Your task to perform on an android device: clear history in the chrome app Image 0: 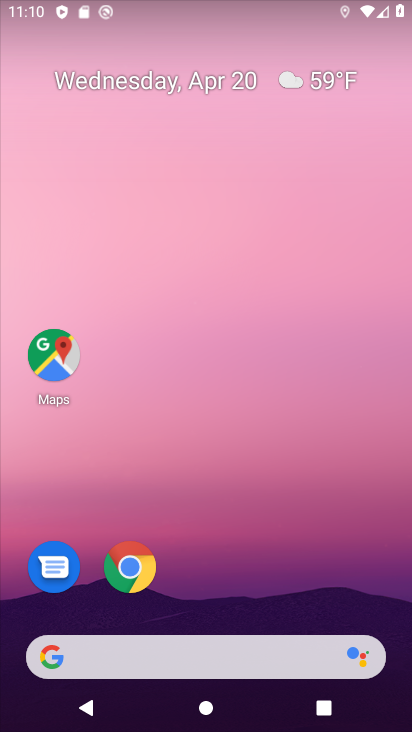
Step 0: click (120, 569)
Your task to perform on an android device: clear history in the chrome app Image 1: 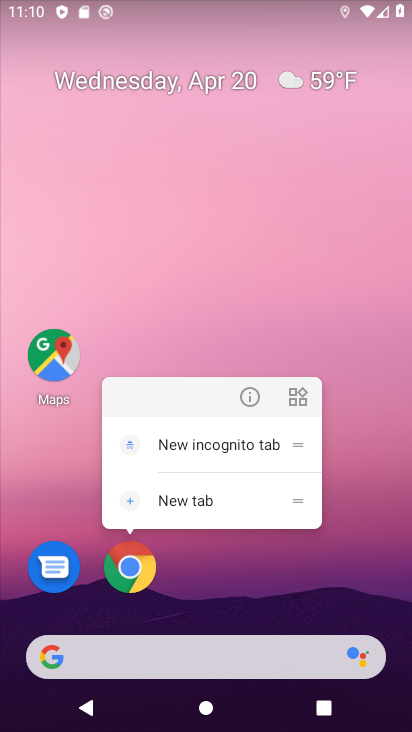
Step 1: click (119, 566)
Your task to perform on an android device: clear history in the chrome app Image 2: 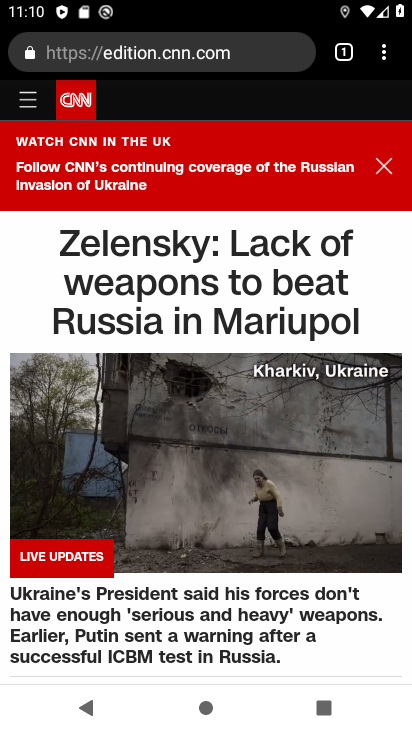
Step 2: click (395, 53)
Your task to perform on an android device: clear history in the chrome app Image 3: 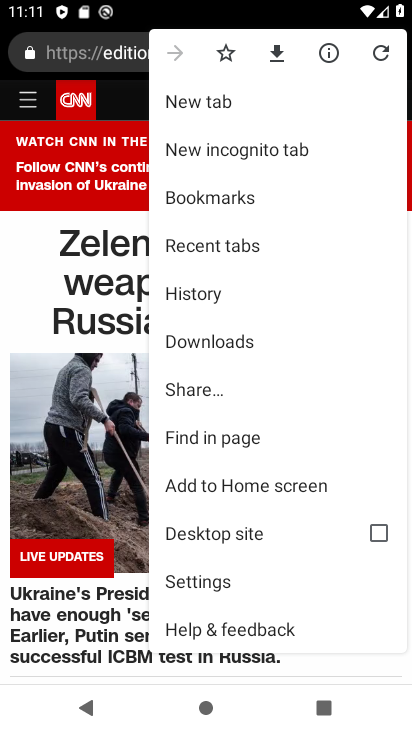
Step 3: click (186, 306)
Your task to perform on an android device: clear history in the chrome app Image 4: 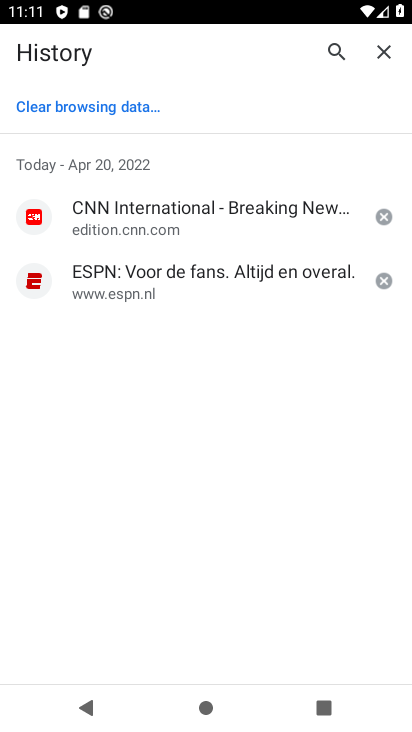
Step 4: click (61, 113)
Your task to perform on an android device: clear history in the chrome app Image 5: 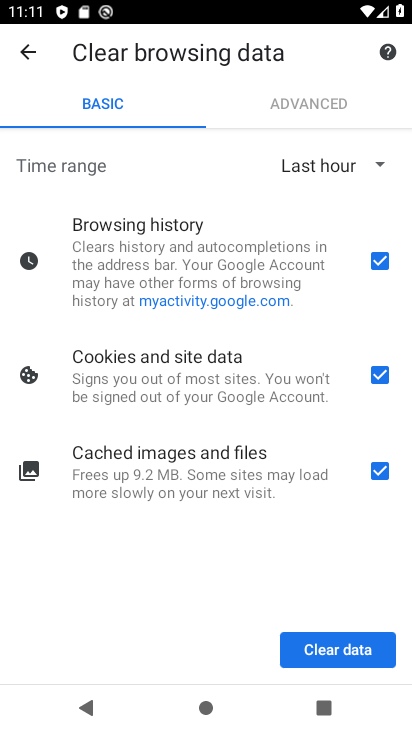
Step 5: click (356, 637)
Your task to perform on an android device: clear history in the chrome app Image 6: 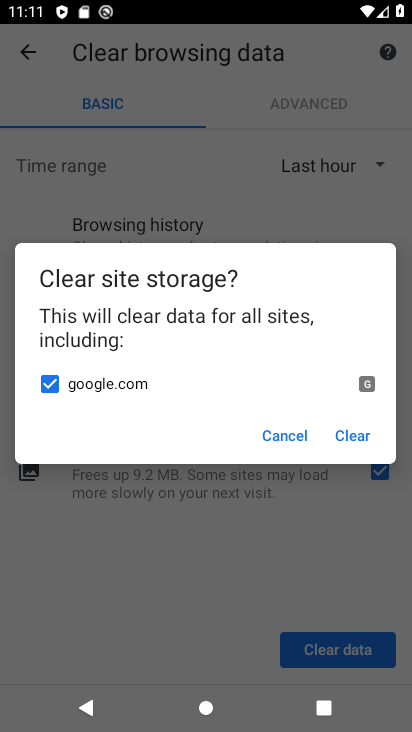
Step 6: click (356, 439)
Your task to perform on an android device: clear history in the chrome app Image 7: 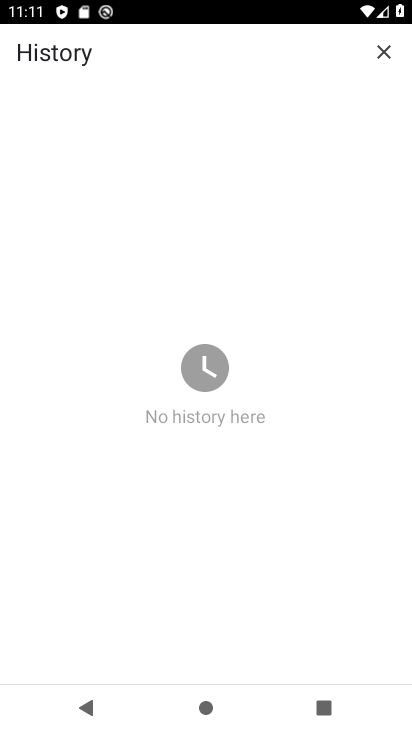
Step 7: task complete